Your task to perform on an android device: see sites visited before in the chrome app Image 0: 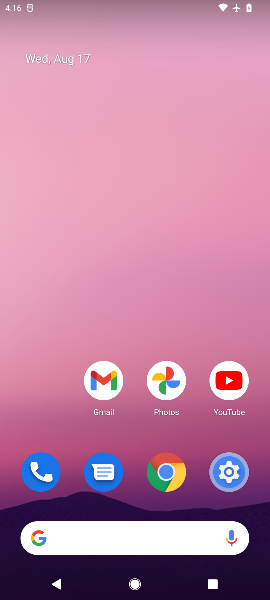
Step 0: click (176, 472)
Your task to perform on an android device: see sites visited before in the chrome app Image 1: 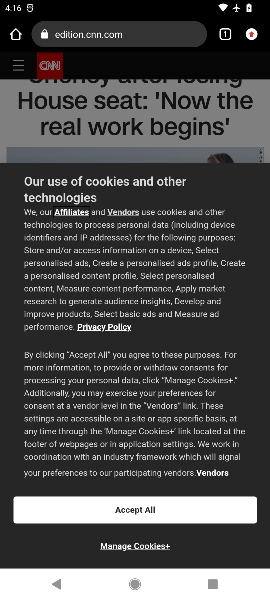
Step 1: click (245, 35)
Your task to perform on an android device: see sites visited before in the chrome app Image 2: 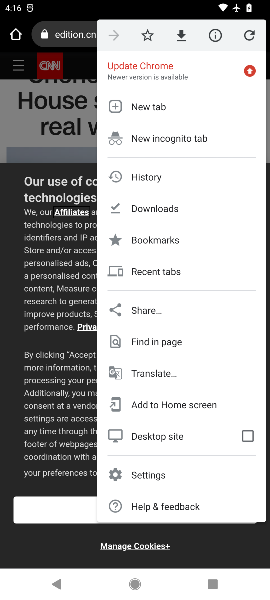
Step 2: click (158, 179)
Your task to perform on an android device: see sites visited before in the chrome app Image 3: 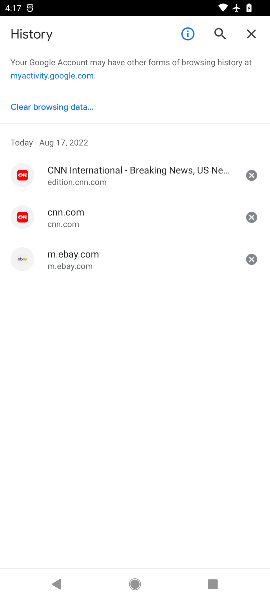
Step 3: task complete